Your task to perform on an android device: set an alarm Image 0: 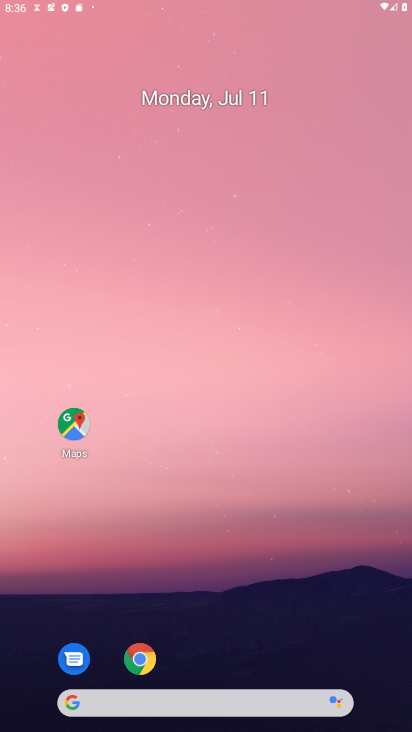
Step 0: click (196, 29)
Your task to perform on an android device: set an alarm Image 1: 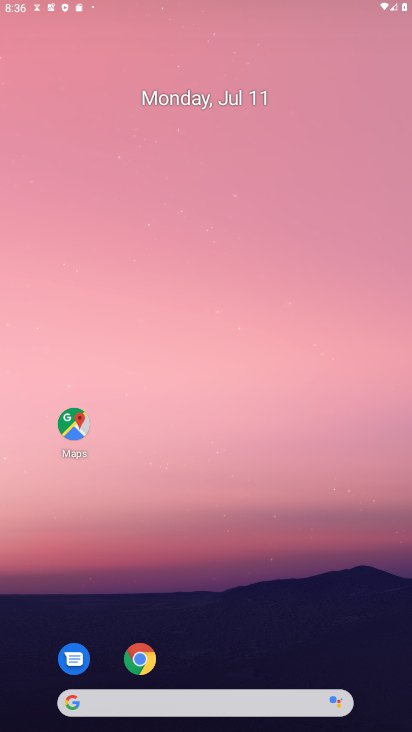
Step 1: drag from (155, 722) to (273, 89)
Your task to perform on an android device: set an alarm Image 2: 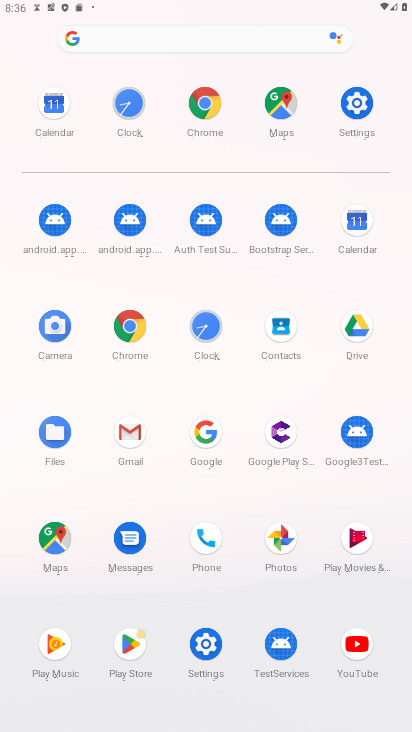
Step 2: click (202, 322)
Your task to perform on an android device: set an alarm Image 3: 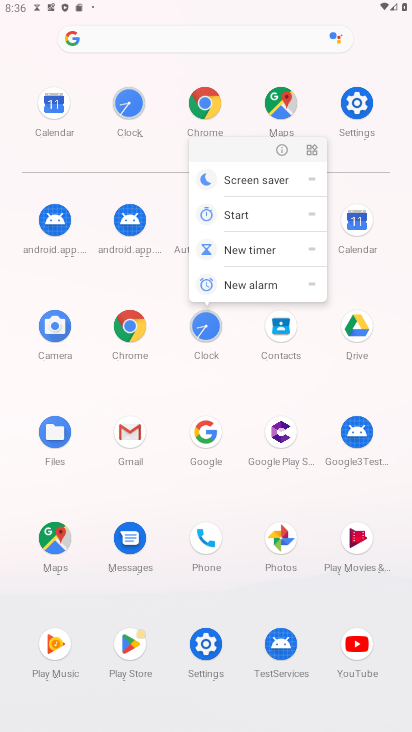
Step 3: click (282, 148)
Your task to perform on an android device: set an alarm Image 4: 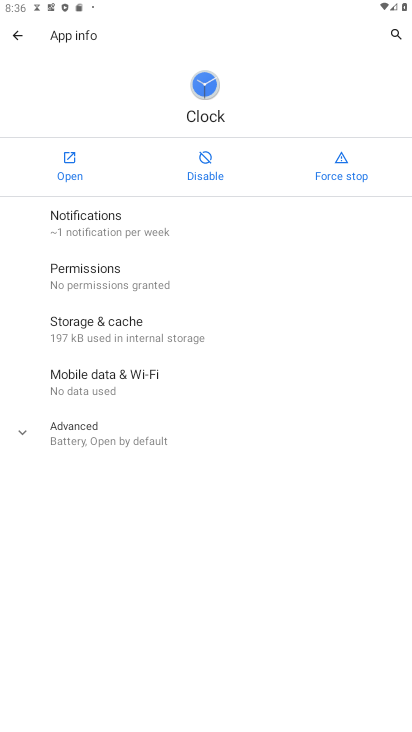
Step 4: click (79, 157)
Your task to perform on an android device: set an alarm Image 5: 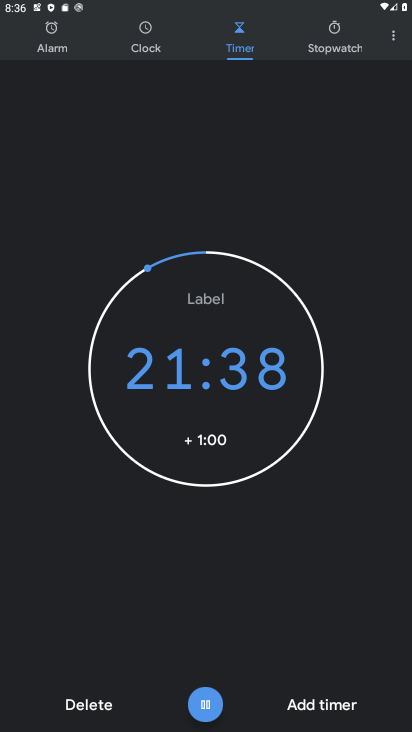
Step 5: click (57, 37)
Your task to perform on an android device: set an alarm Image 6: 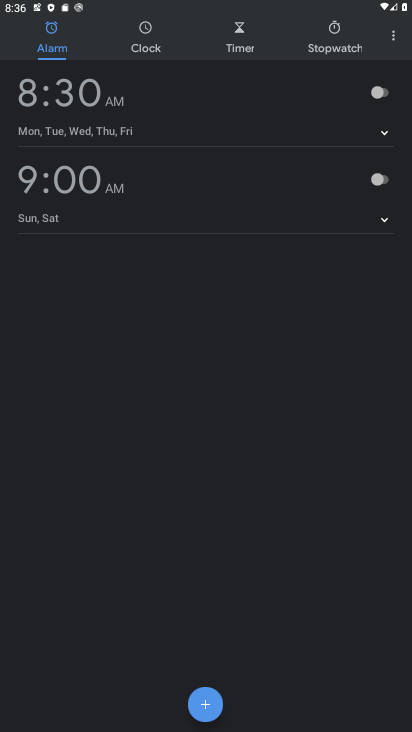
Step 6: click (371, 95)
Your task to perform on an android device: set an alarm Image 7: 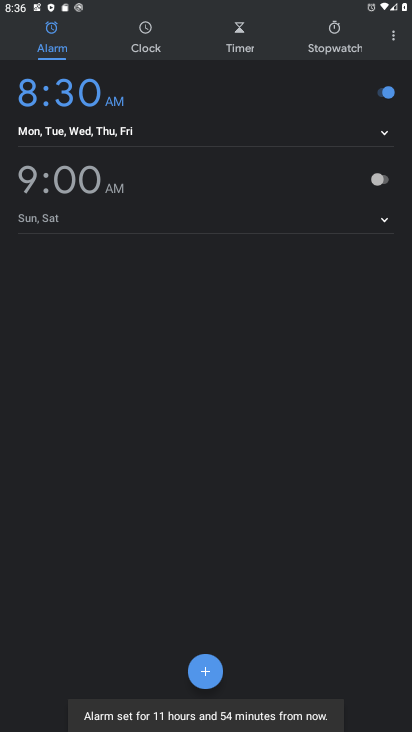
Step 7: task complete